Your task to perform on an android device: turn off improve location accuracy Image 0: 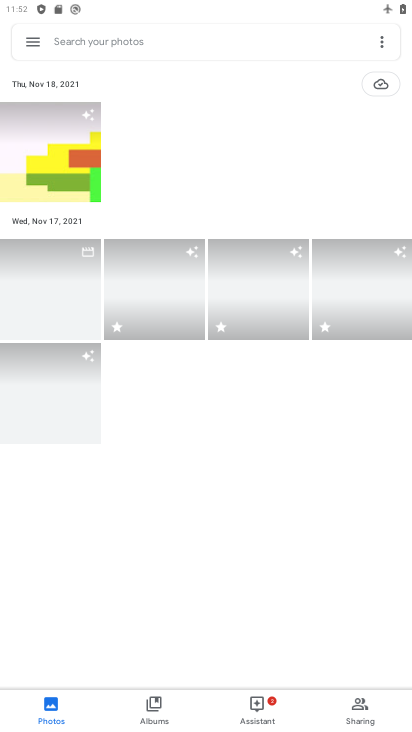
Step 0: press home button
Your task to perform on an android device: turn off improve location accuracy Image 1: 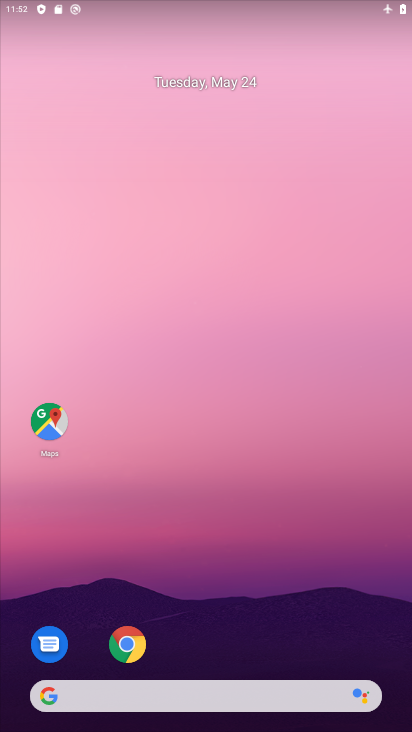
Step 1: drag from (293, 552) to (235, 29)
Your task to perform on an android device: turn off improve location accuracy Image 2: 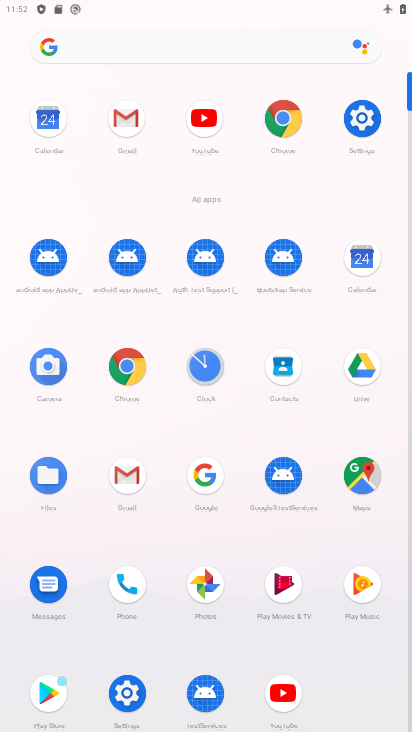
Step 2: click (359, 116)
Your task to perform on an android device: turn off improve location accuracy Image 3: 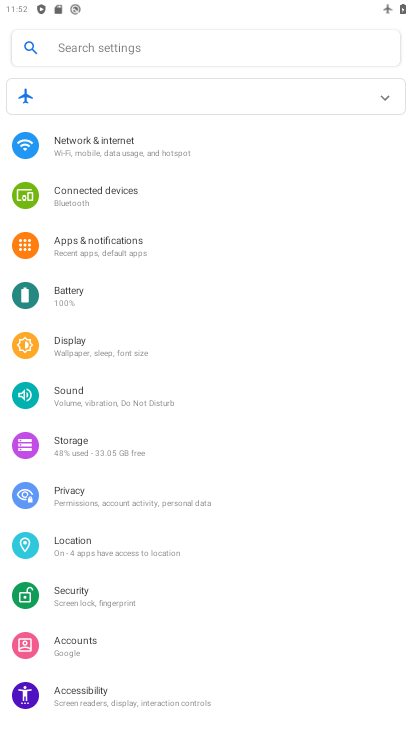
Step 3: click (71, 539)
Your task to perform on an android device: turn off improve location accuracy Image 4: 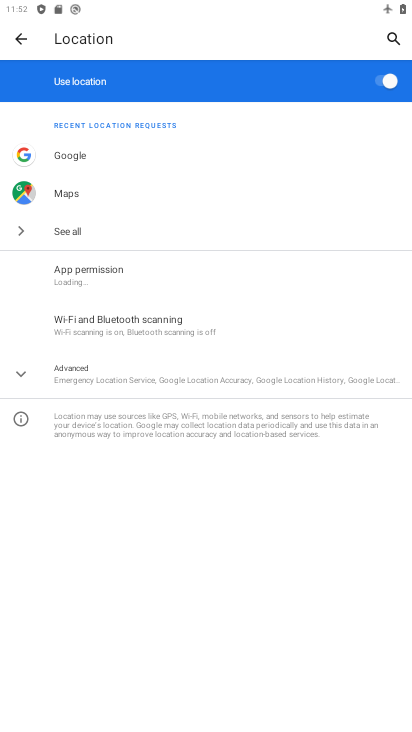
Step 4: click (38, 371)
Your task to perform on an android device: turn off improve location accuracy Image 5: 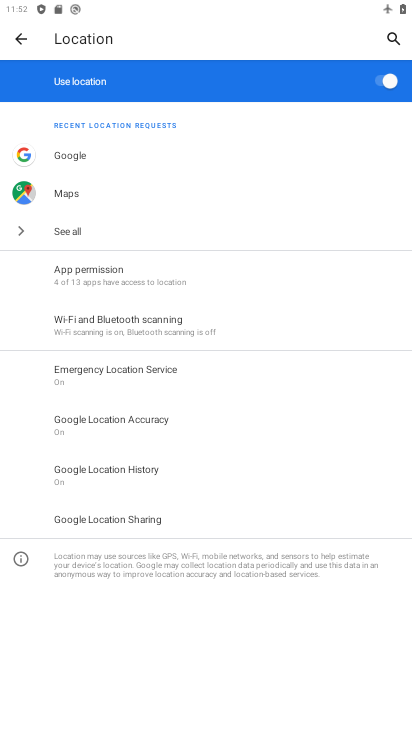
Step 5: click (138, 418)
Your task to perform on an android device: turn off improve location accuracy Image 6: 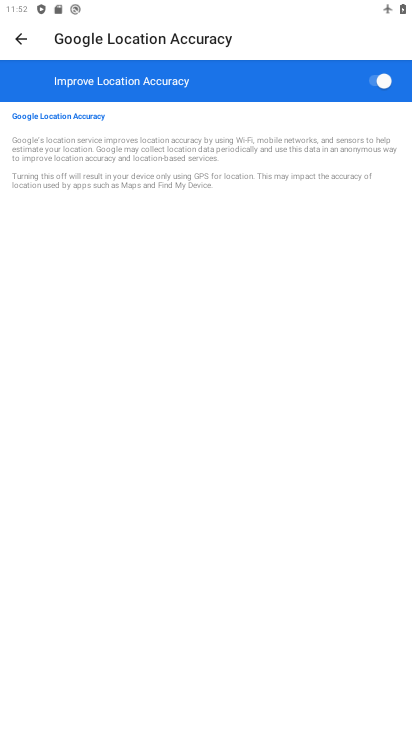
Step 6: click (380, 75)
Your task to perform on an android device: turn off improve location accuracy Image 7: 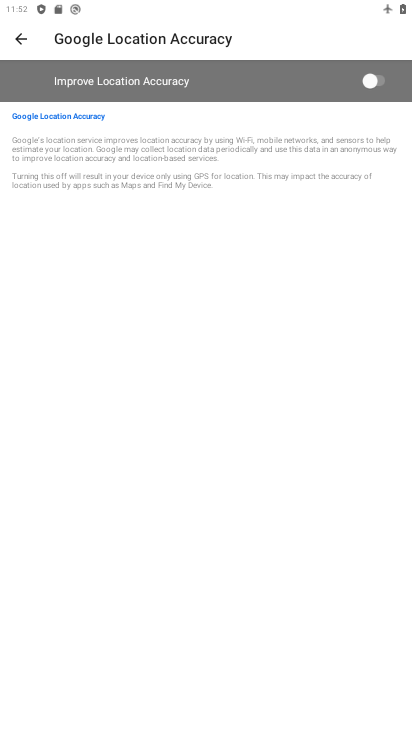
Step 7: task complete